Your task to perform on an android device: Add "alienware area 51" to the cart on bestbuy.com, then select checkout. Image 0: 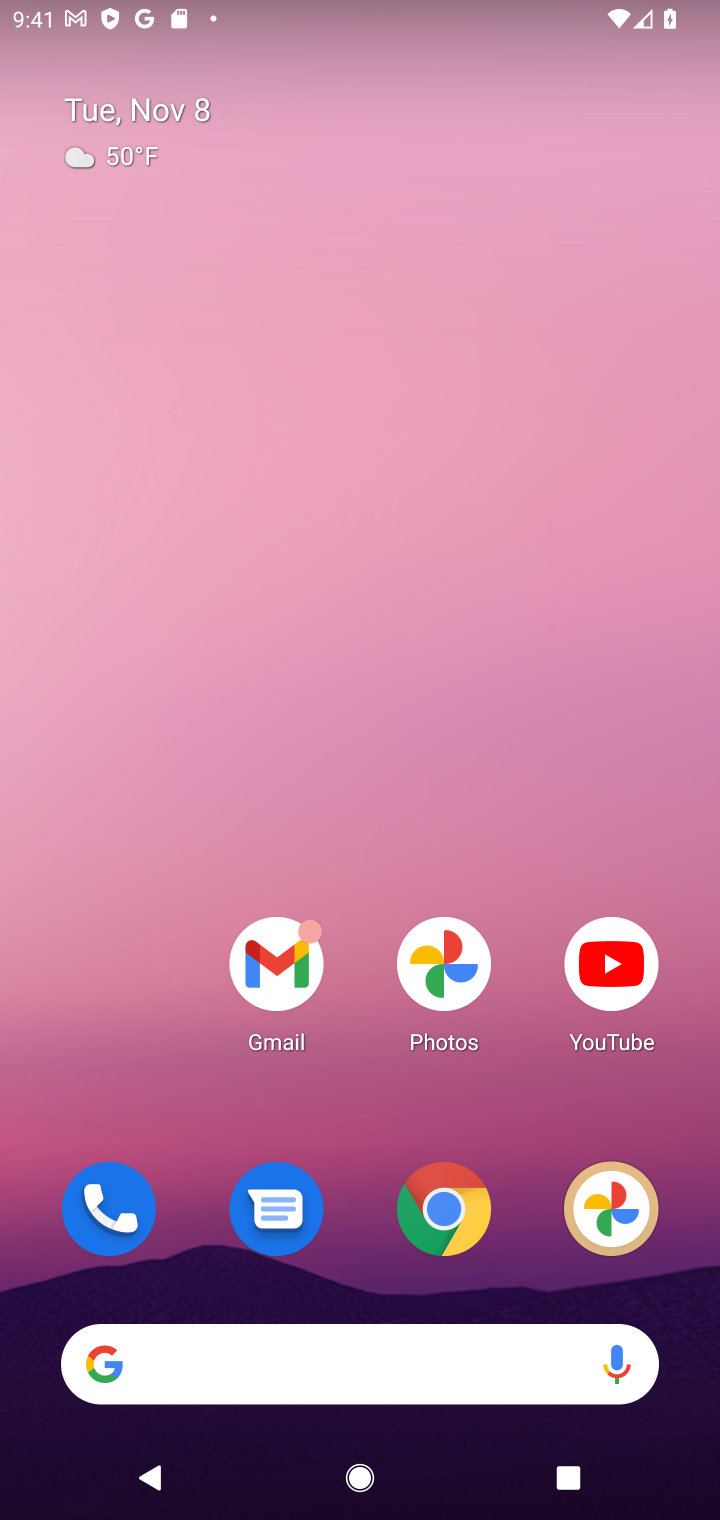
Step 0: click (432, 1196)
Your task to perform on an android device: Add "alienware area 51" to the cart on bestbuy.com, then select checkout. Image 1: 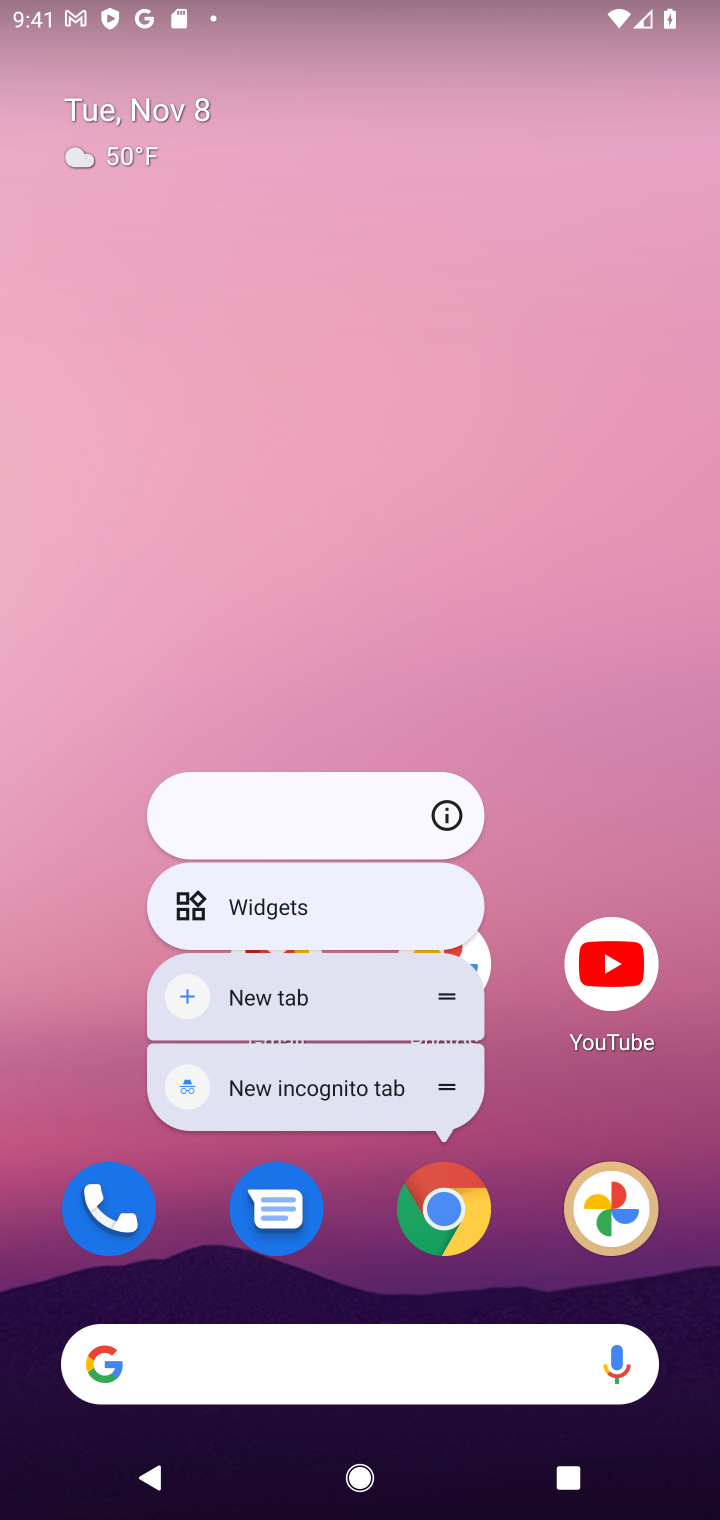
Step 1: click (460, 1213)
Your task to perform on an android device: Add "alienware area 51" to the cart on bestbuy.com, then select checkout. Image 2: 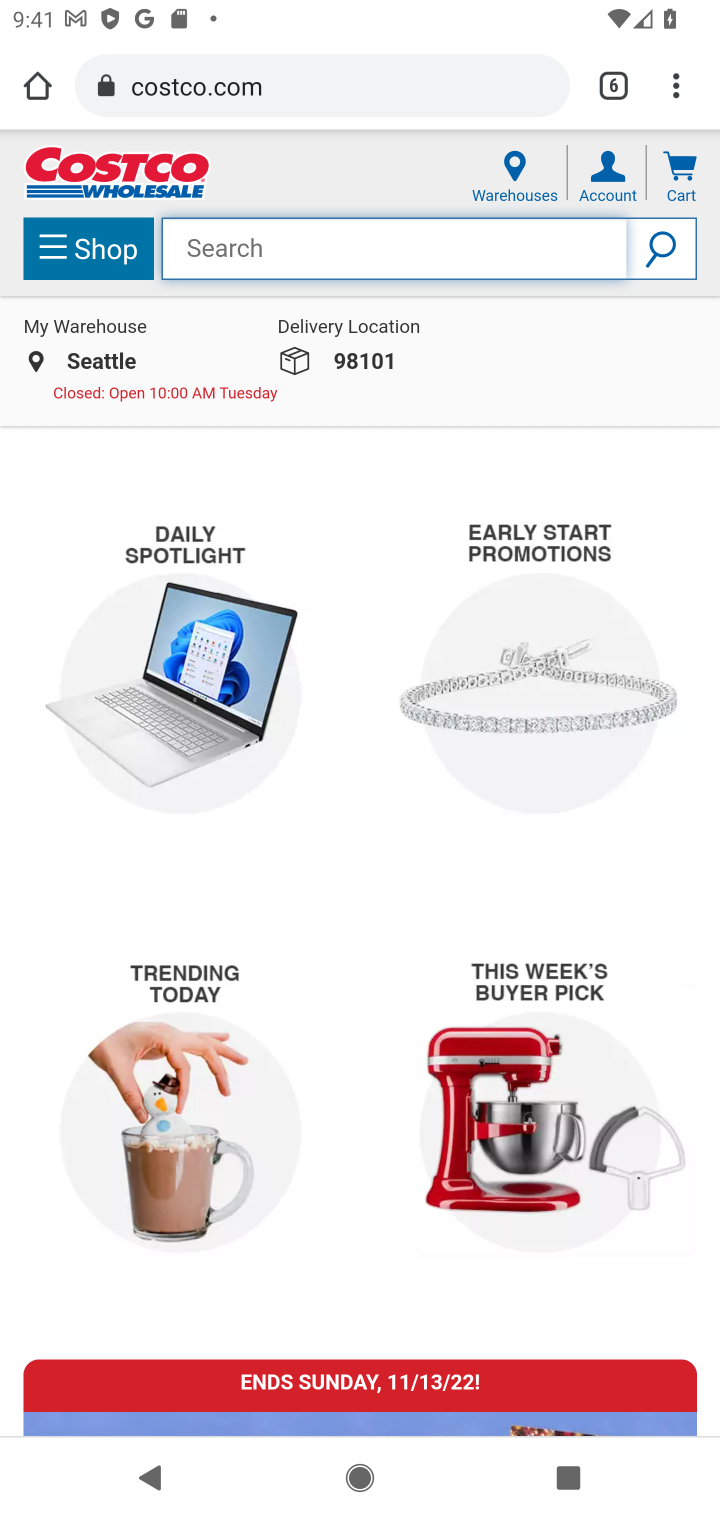
Step 2: click (608, 83)
Your task to perform on an android device: Add "alienware area 51" to the cart on bestbuy.com, then select checkout. Image 3: 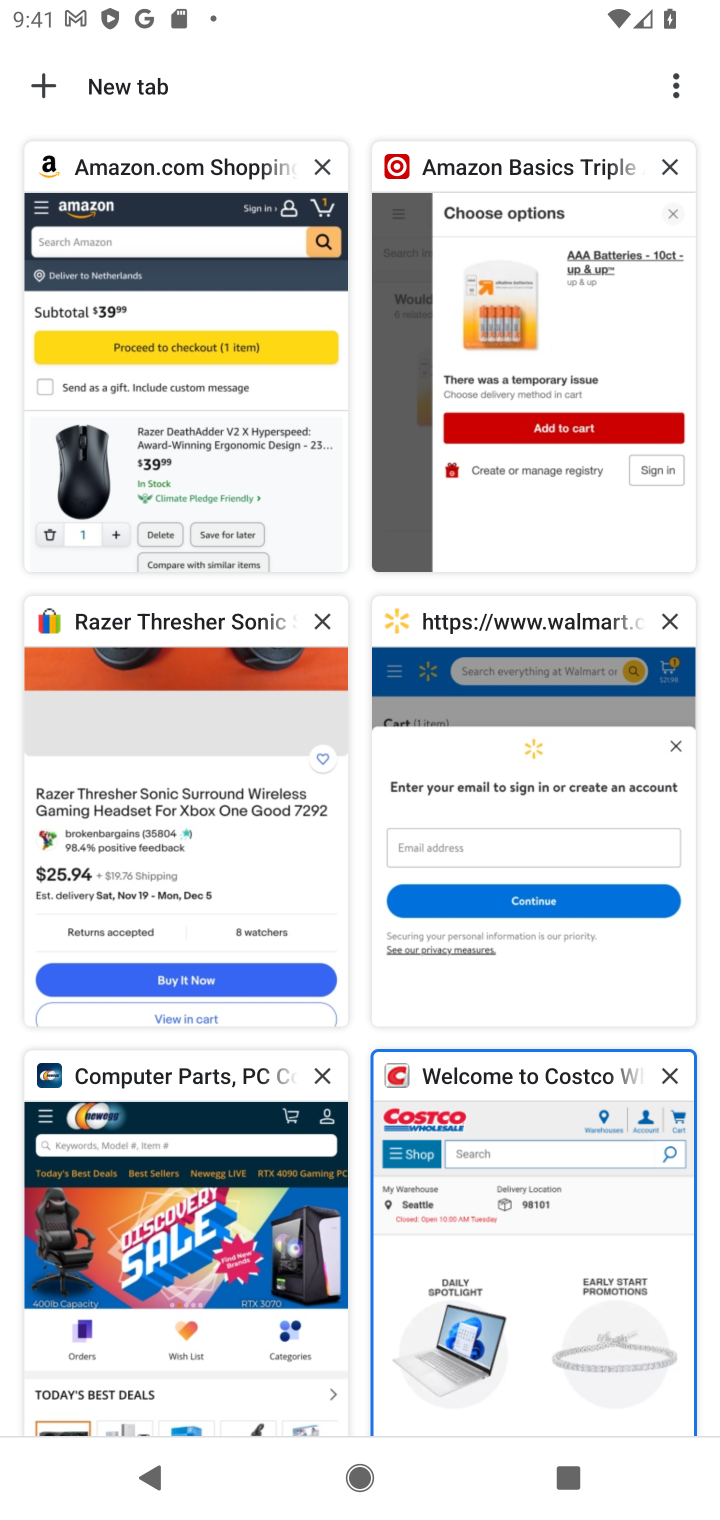
Step 3: click (40, 80)
Your task to perform on an android device: Add "alienware area 51" to the cart on bestbuy.com, then select checkout. Image 4: 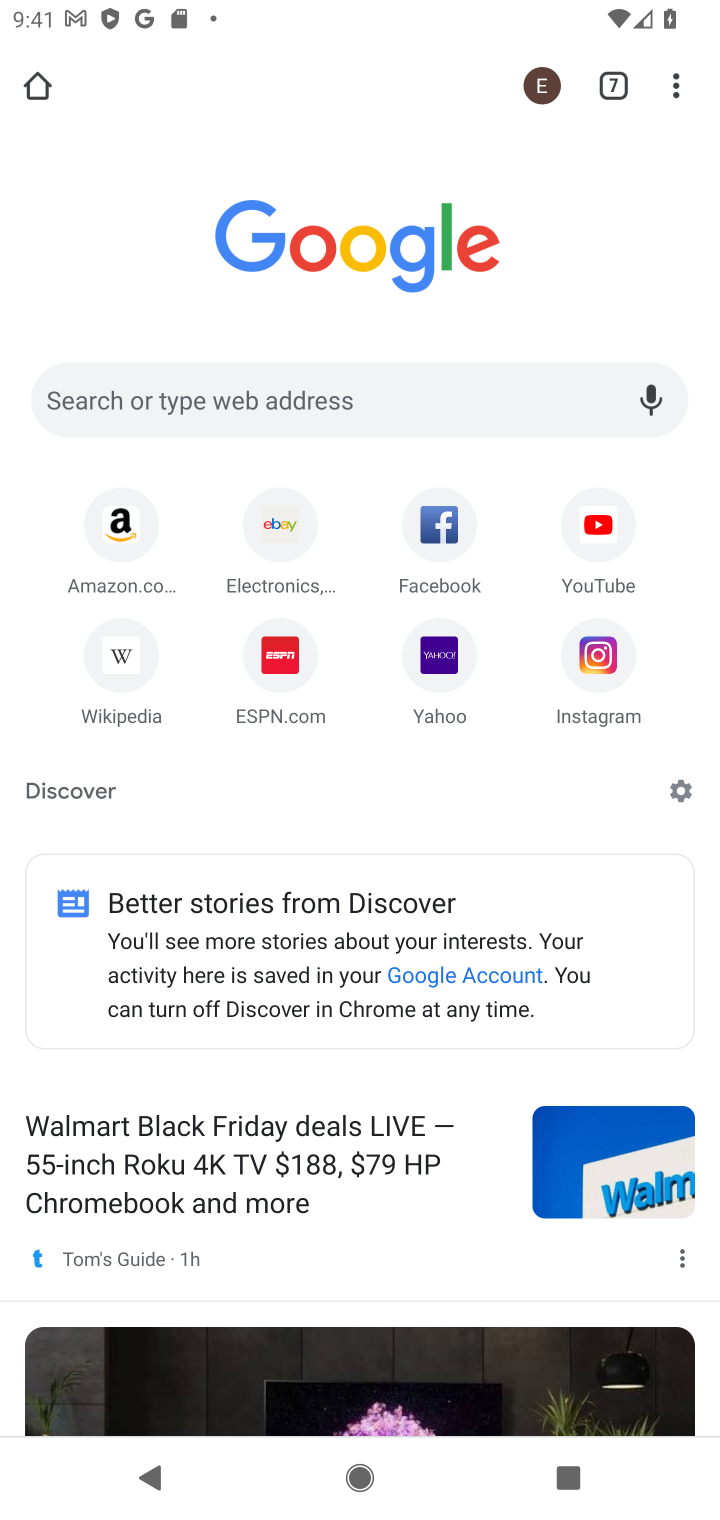
Step 4: click (285, 404)
Your task to perform on an android device: Add "alienware area 51" to the cart on bestbuy.com, then select checkout. Image 5: 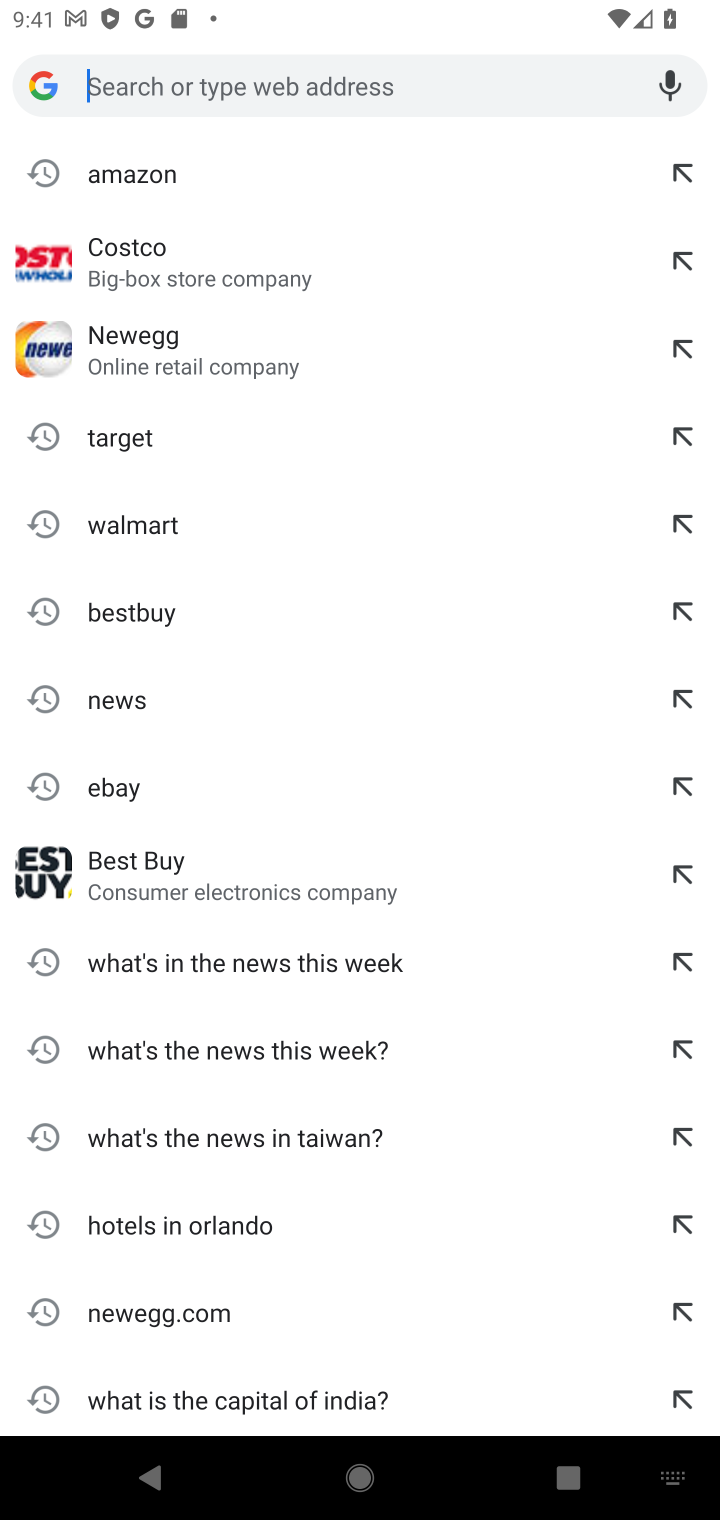
Step 5: click (153, 882)
Your task to perform on an android device: Add "alienware area 51" to the cart on bestbuy.com, then select checkout. Image 6: 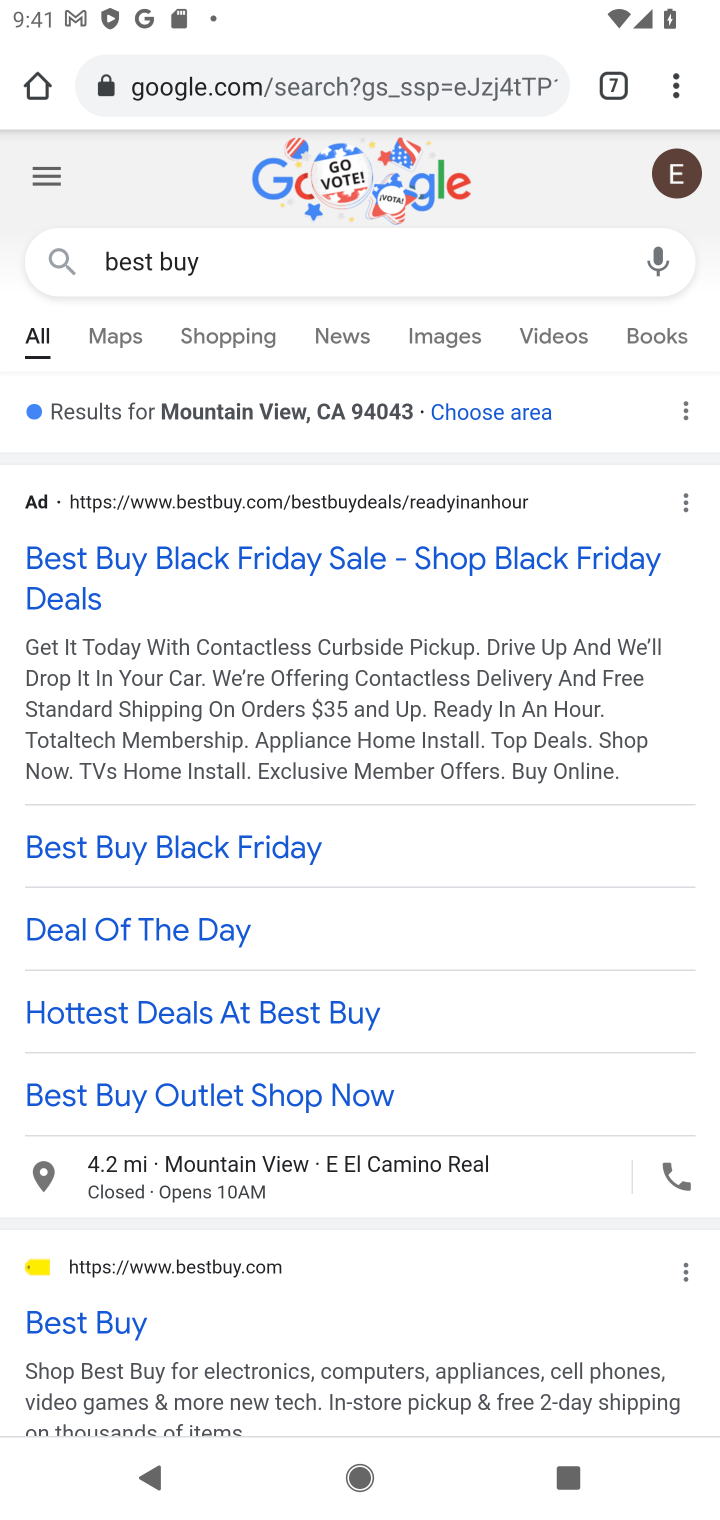
Step 6: drag from (194, 1296) to (314, 847)
Your task to perform on an android device: Add "alienware area 51" to the cart on bestbuy.com, then select checkout. Image 7: 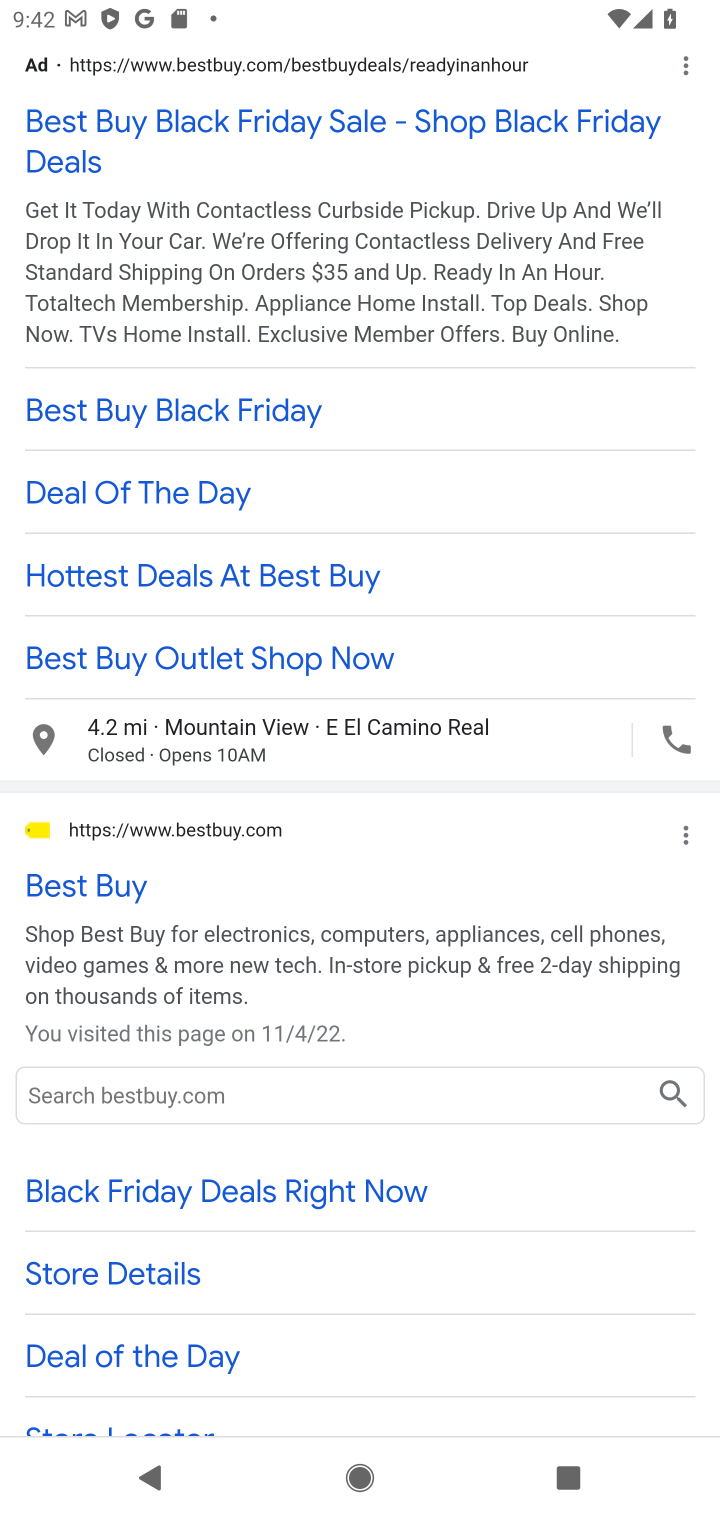
Step 7: click (148, 1095)
Your task to perform on an android device: Add "alienware area 51" to the cart on bestbuy.com, then select checkout. Image 8: 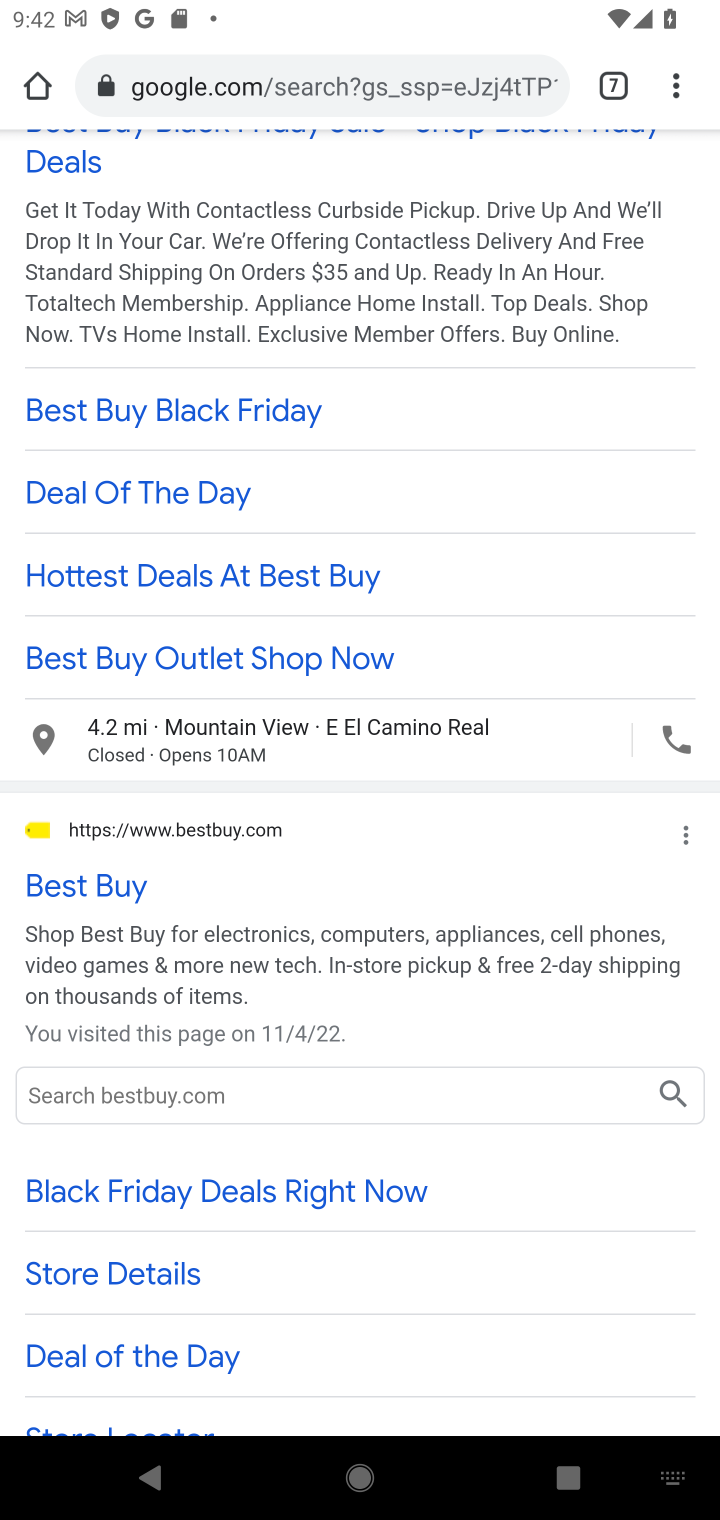
Step 8: type "alienware area 51"
Your task to perform on an android device: Add "alienware area 51" to the cart on bestbuy.com, then select checkout. Image 9: 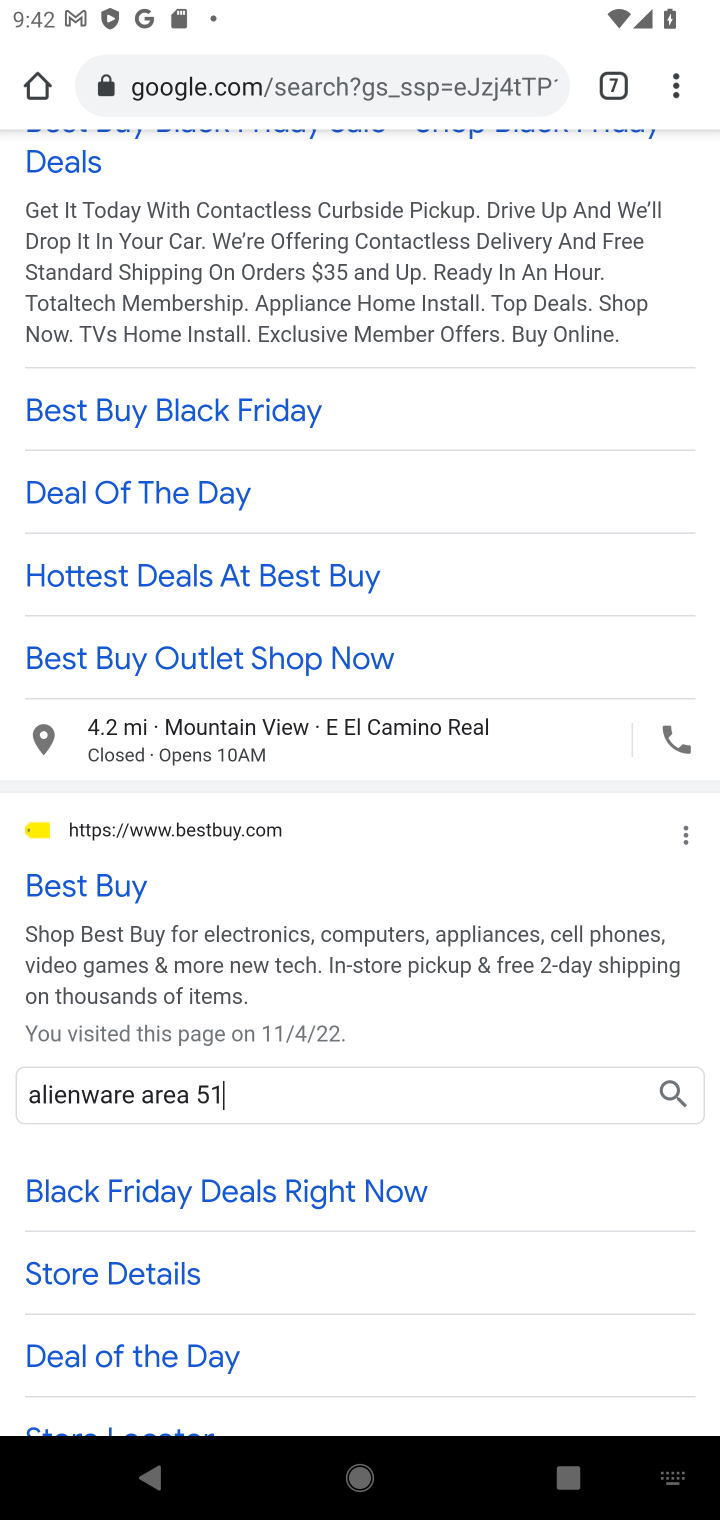
Step 9: click (671, 1090)
Your task to perform on an android device: Add "alienware area 51" to the cart on bestbuy.com, then select checkout. Image 10: 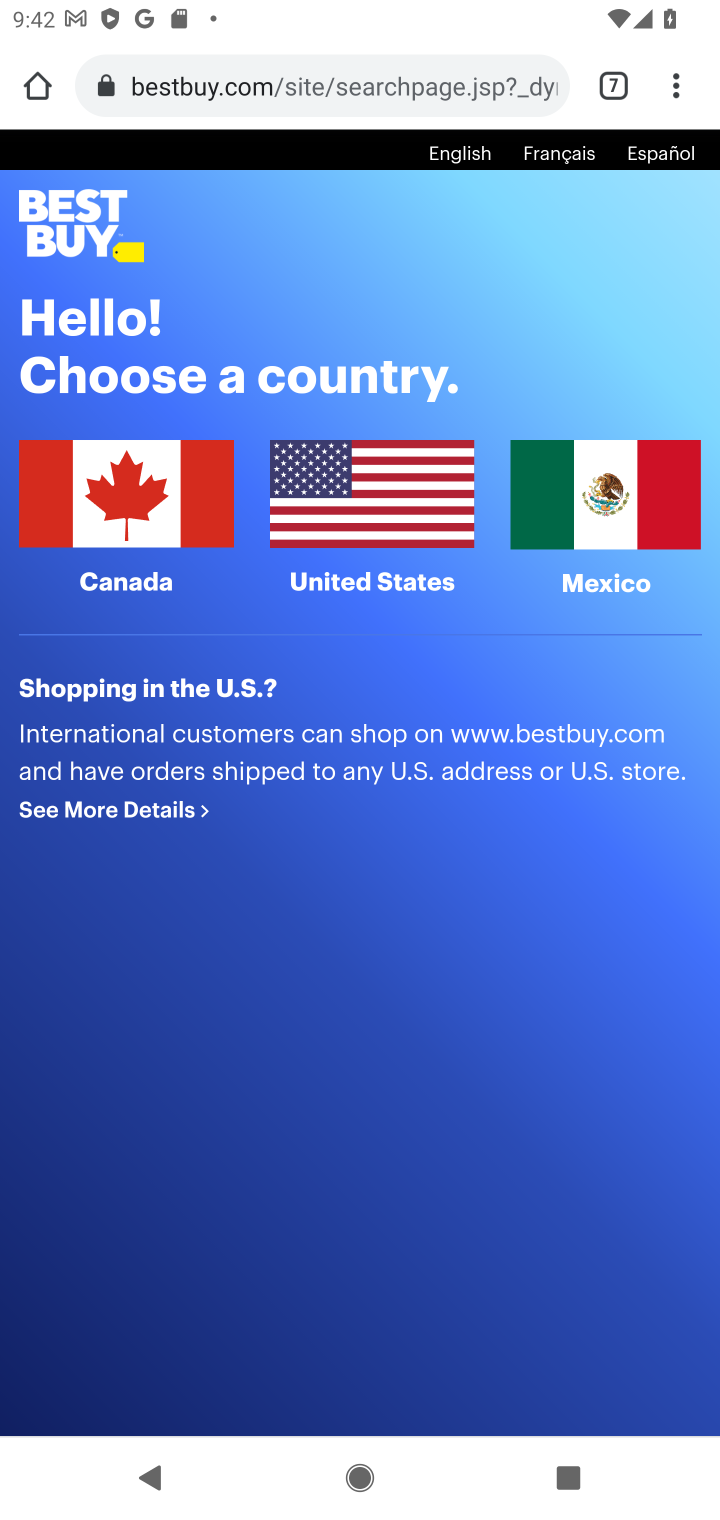
Step 10: click (356, 574)
Your task to perform on an android device: Add "alienware area 51" to the cart on bestbuy.com, then select checkout. Image 11: 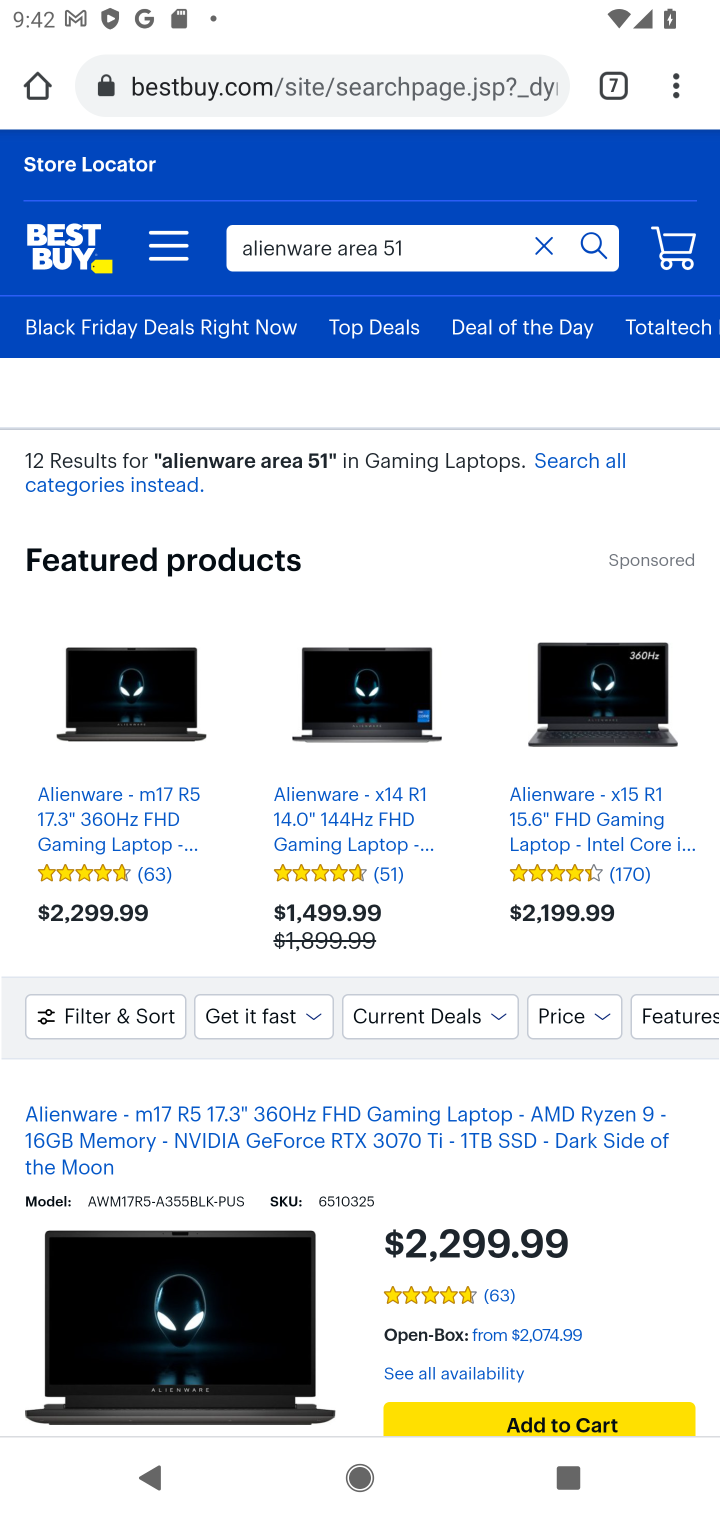
Step 11: click (591, 1420)
Your task to perform on an android device: Add "alienware area 51" to the cart on bestbuy.com, then select checkout. Image 12: 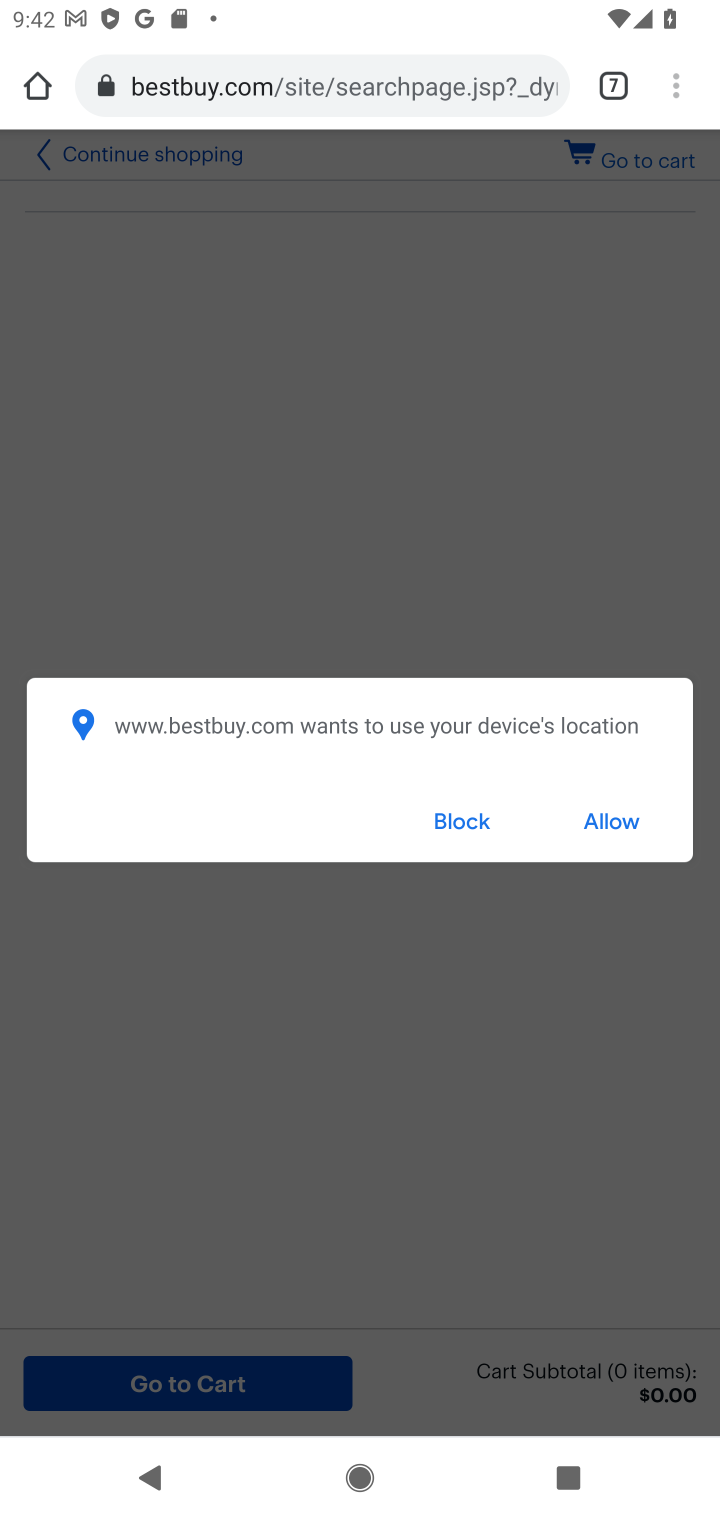
Step 12: click (460, 811)
Your task to perform on an android device: Add "alienware area 51" to the cart on bestbuy.com, then select checkout. Image 13: 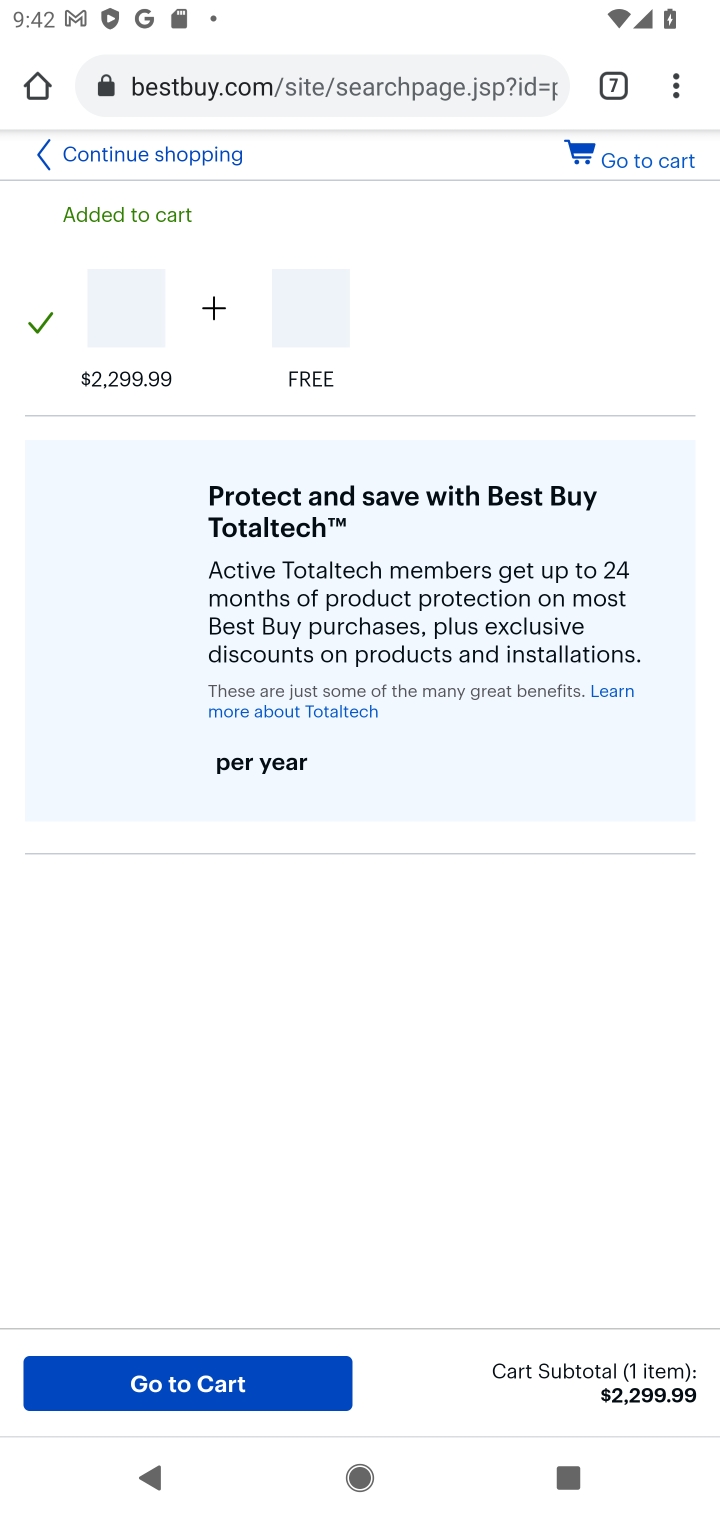
Step 13: click (645, 166)
Your task to perform on an android device: Add "alienware area 51" to the cart on bestbuy.com, then select checkout. Image 14: 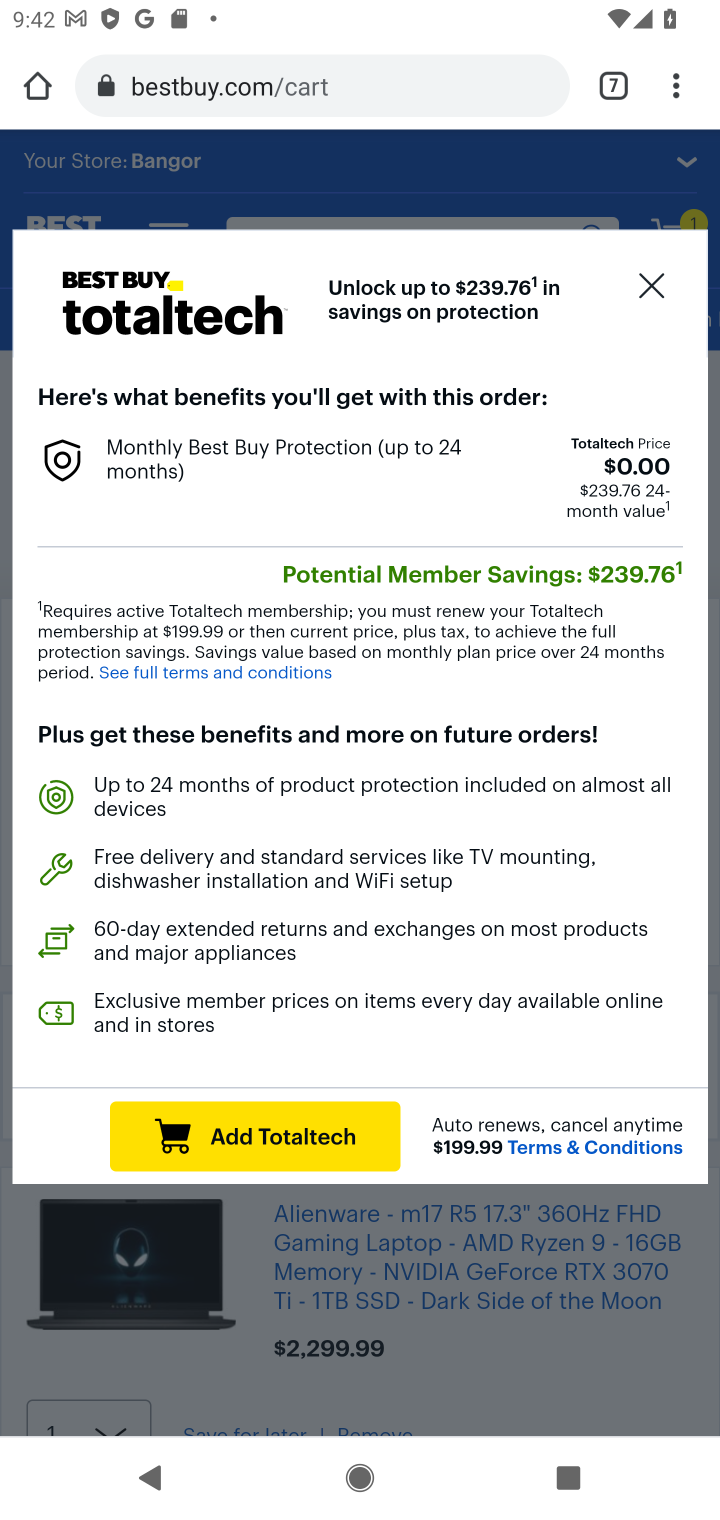
Step 14: click (648, 283)
Your task to perform on an android device: Add "alienware area 51" to the cart on bestbuy.com, then select checkout. Image 15: 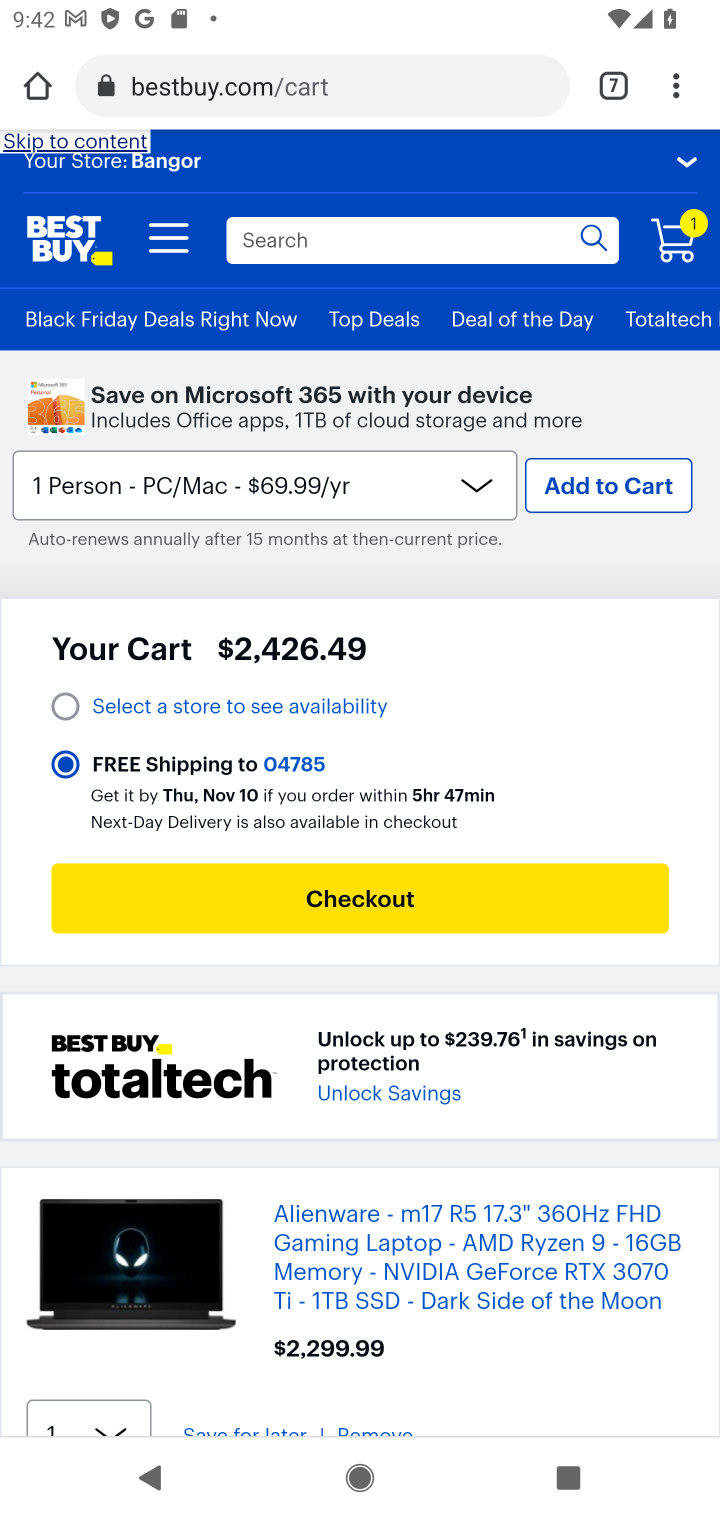
Step 15: click (334, 903)
Your task to perform on an android device: Add "alienware area 51" to the cart on bestbuy.com, then select checkout. Image 16: 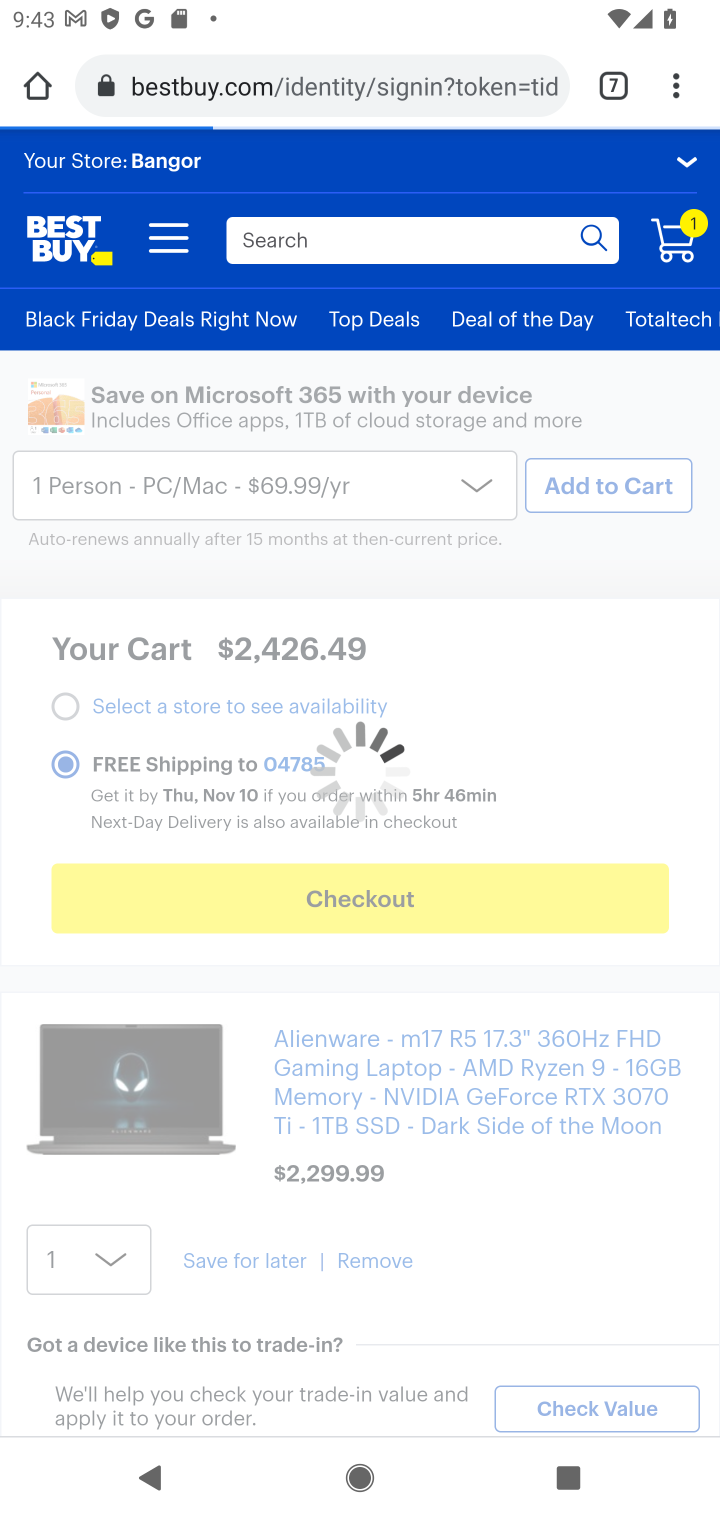
Step 16: task complete